Your task to perform on an android device: Search for a coffee table on IKEA Image 0: 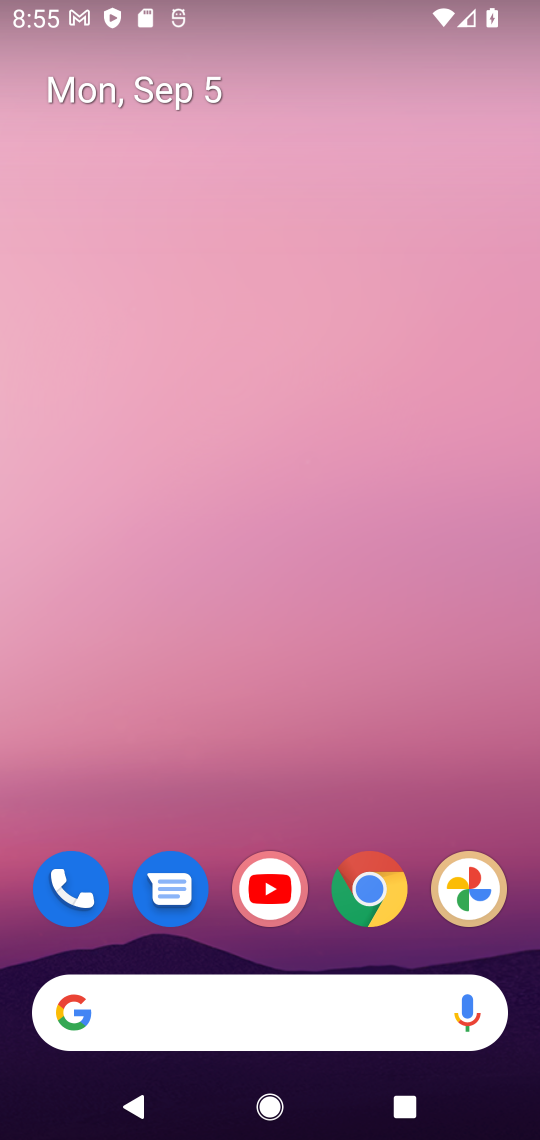
Step 0: click (256, 1008)
Your task to perform on an android device: Search for a coffee table on IKEA Image 1: 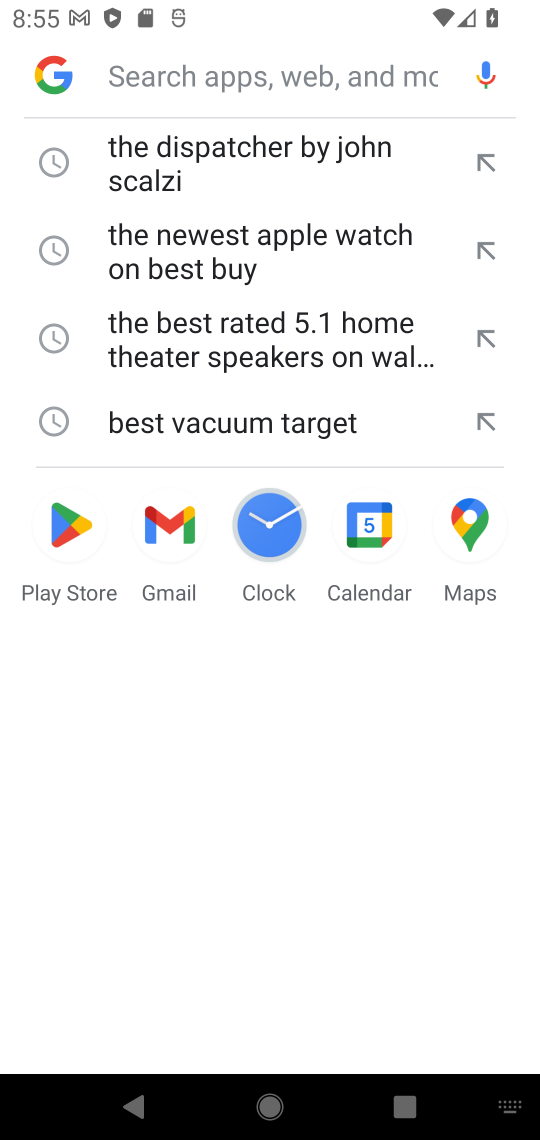
Step 1: type "a coffee table on IKEA"
Your task to perform on an android device: Search for a coffee table on IKEA Image 2: 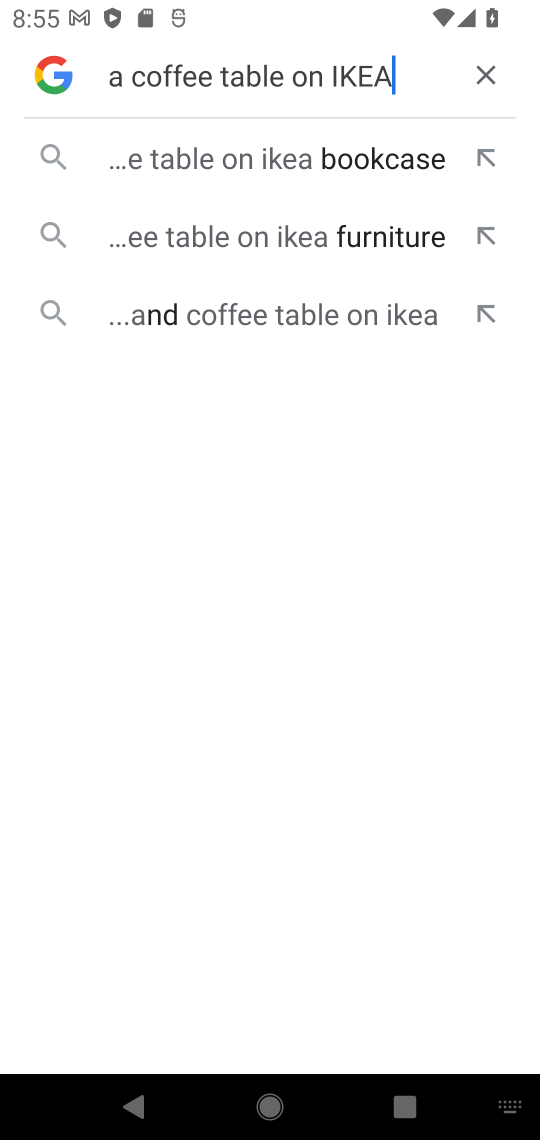
Step 2: click (348, 160)
Your task to perform on an android device: Search for a coffee table on IKEA Image 3: 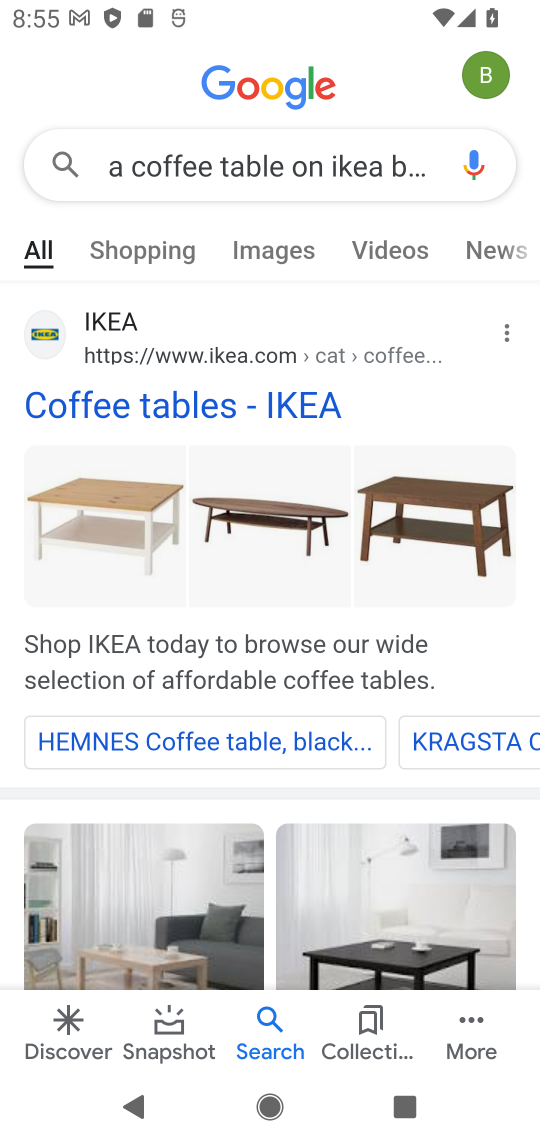
Step 3: task complete